Your task to perform on an android device: Clear all items from cart on ebay.com. Image 0: 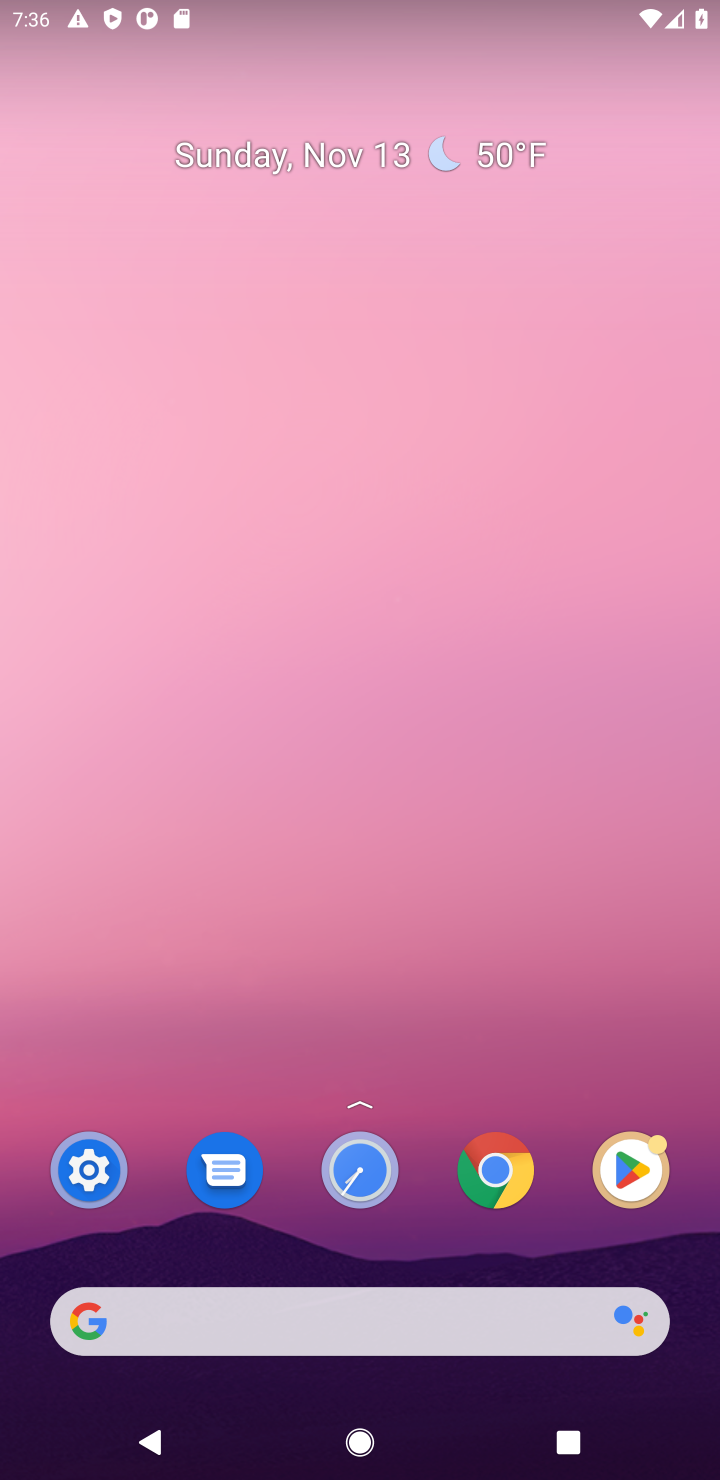
Step 0: click (355, 1326)
Your task to perform on an android device: Clear all items from cart on ebay.com. Image 1: 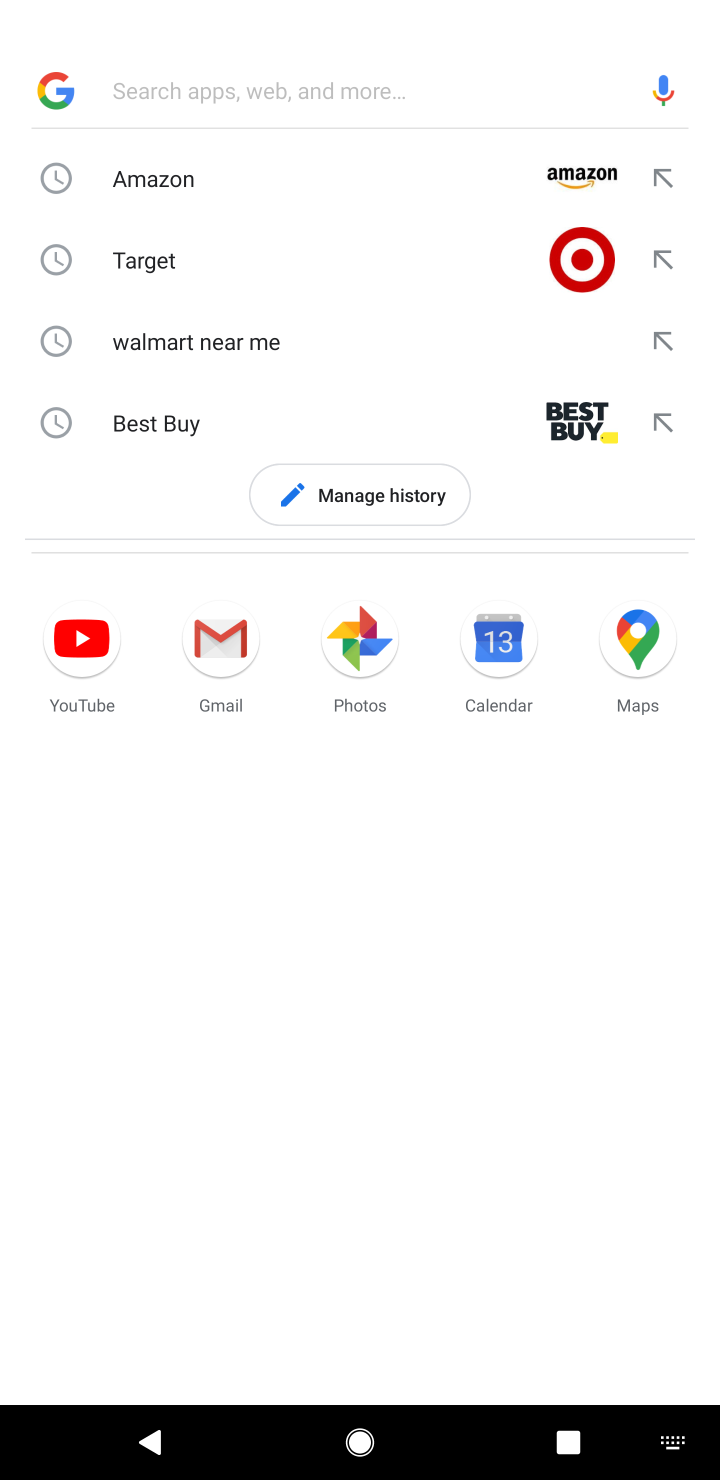
Step 1: type "ebay.com"
Your task to perform on an android device: Clear all items from cart on ebay.com. Image 2: 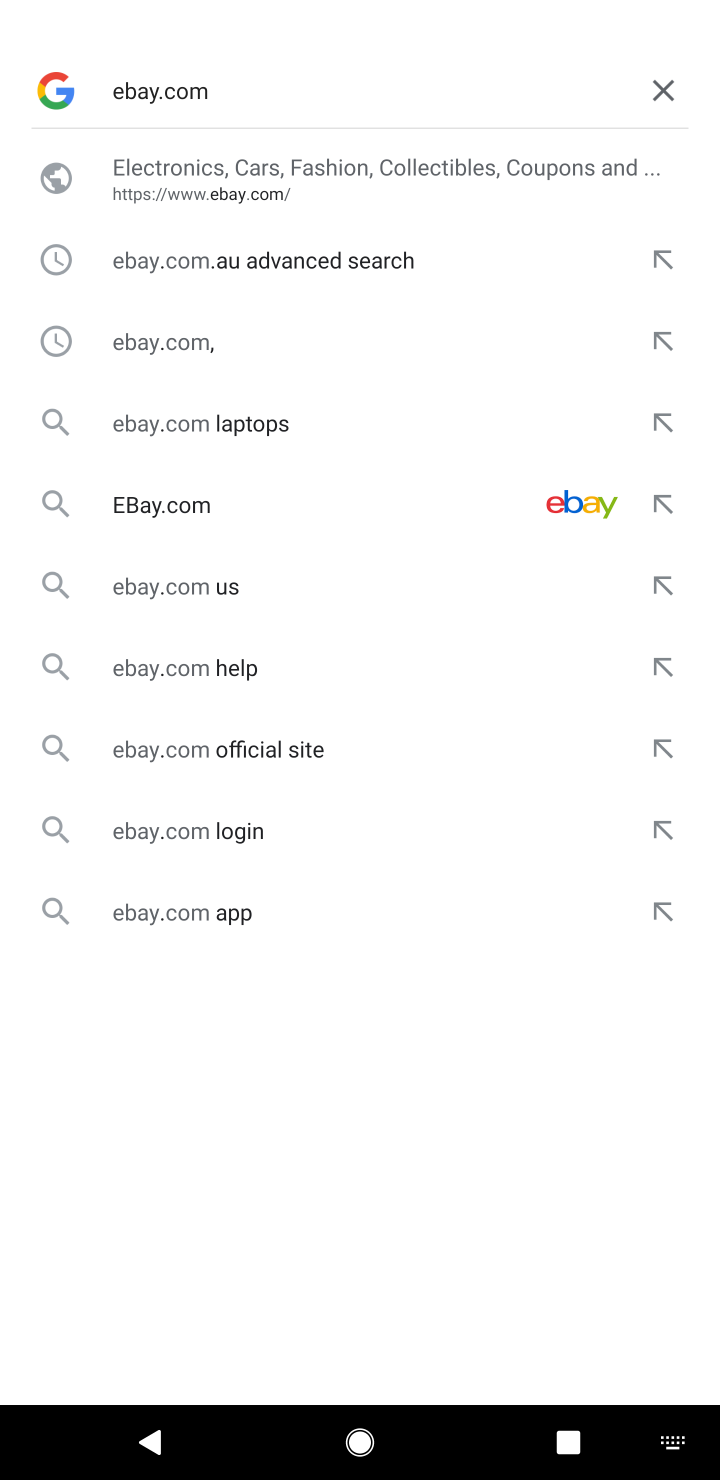
Step 2: click (211, 193)
Your task to perform on an android device: Clear all items from cart on ebay.com. Image 3: 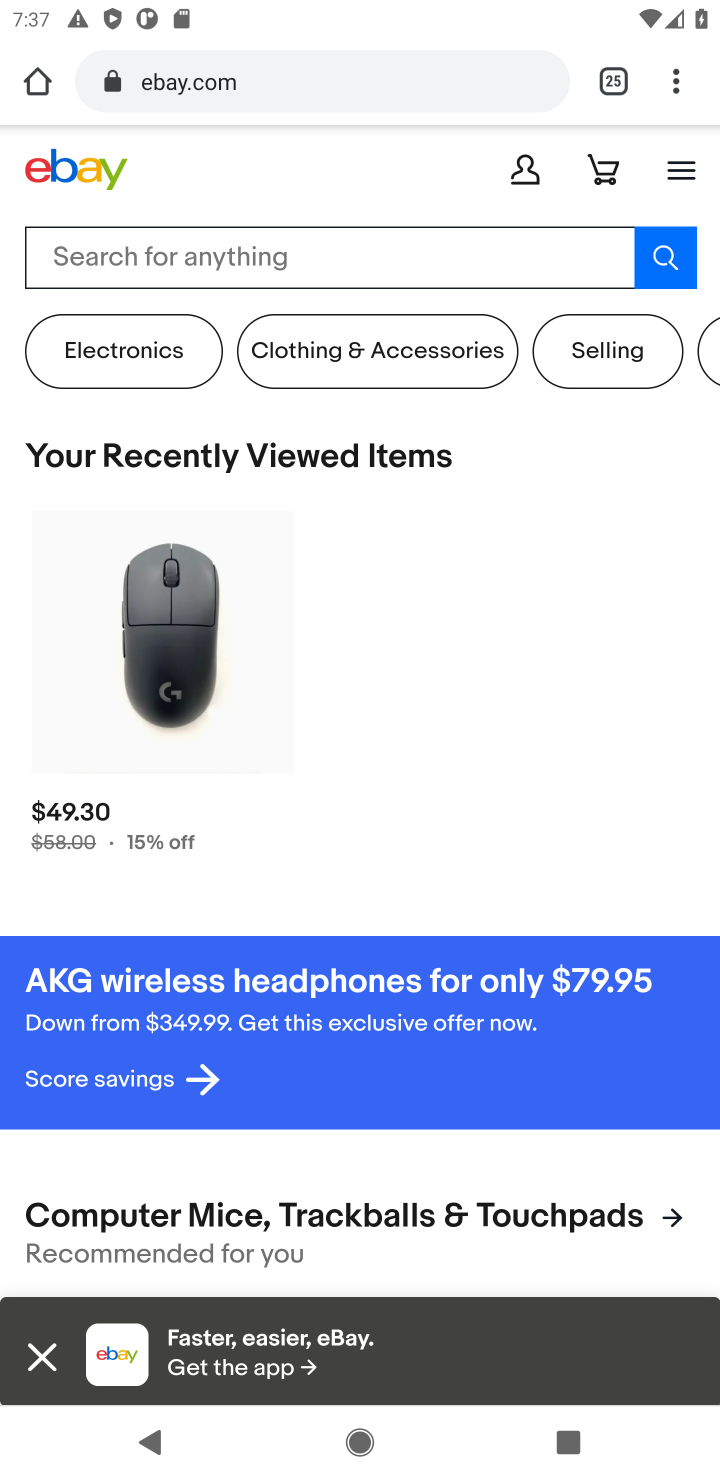
Step 3: task complete